Your task to perform on an android device: refresh tabs in the chrome app Image 0: 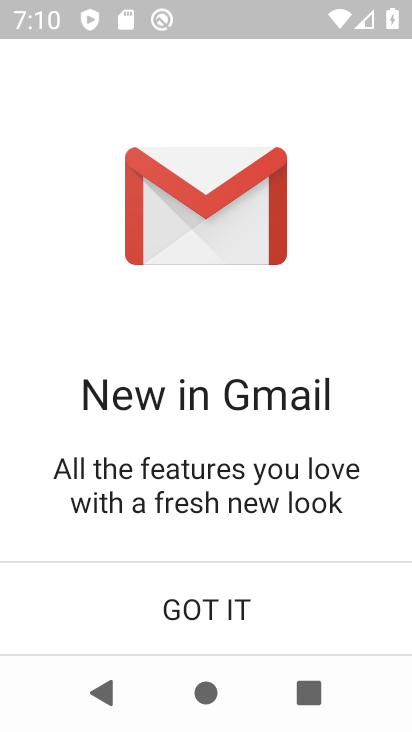
Step 0: press home button
Your task to perform on an android device: refresh tabs in the chrome app Image 1: 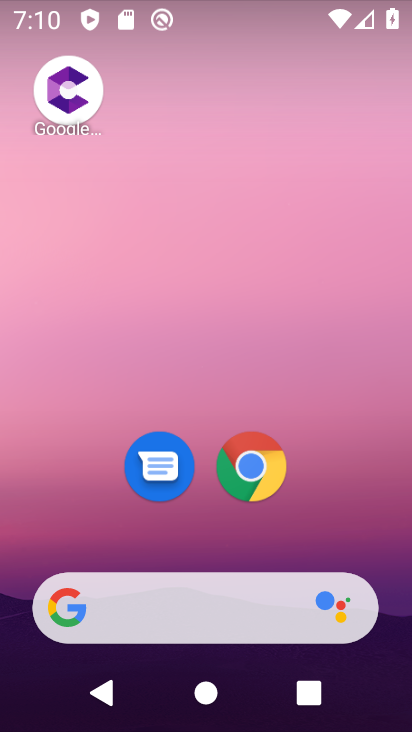
Step 1: click (253, 483)
Your task to perform on an android device: refresh tabs in the chrome app Image 2: 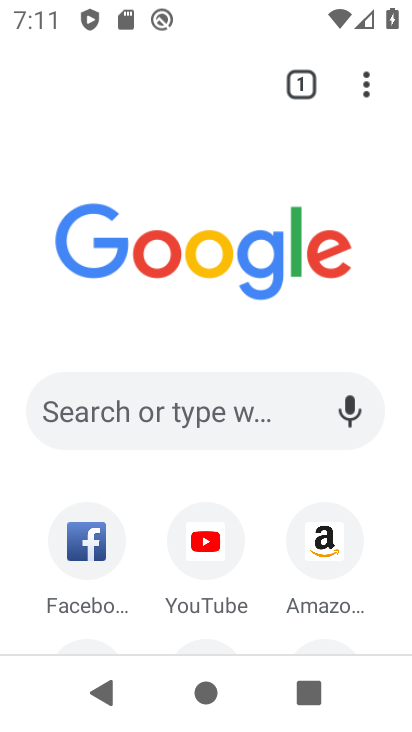
Step 2: click (363, 106)
Your task to perform on an android device: refresh tabs in the chrome app Image 3: 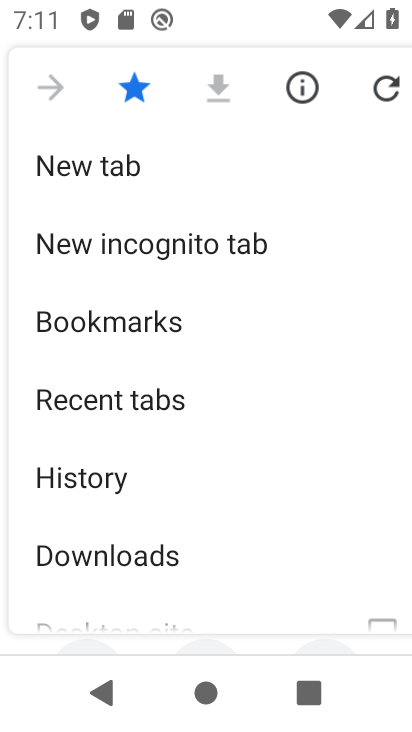
Step 3: click (377, 89)
Your task to perform on an android device: refresh tabs in the chrome app Image 4: 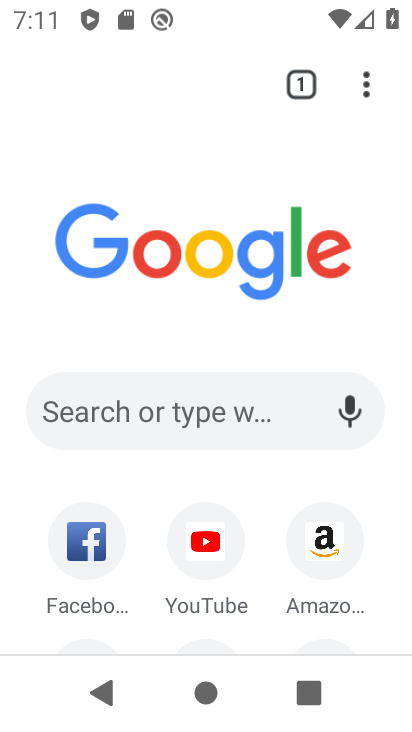
Step 4: task complete